Your task to perform on an android device: Open the phone app and click the voicemail tab. Image 0: 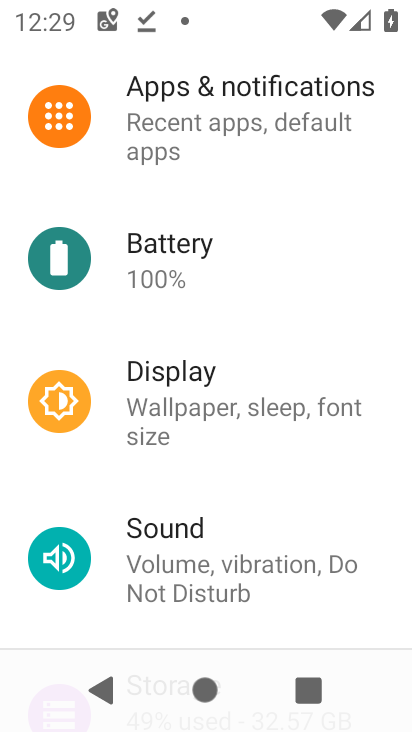
Step 0: press home button
Your task to perform on an android device: Open the phone app and click the voicemail tab. Image 1: 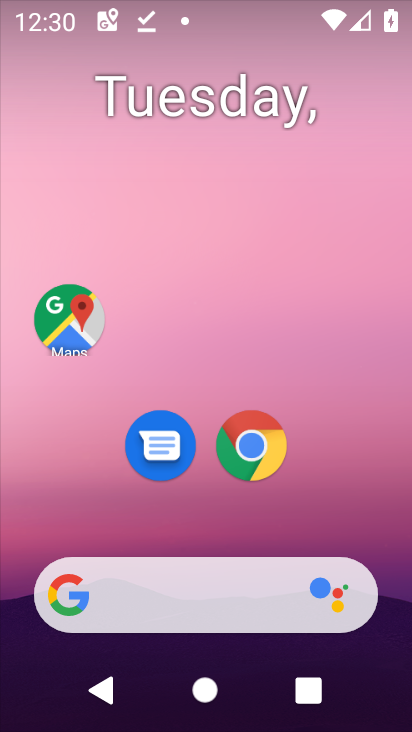
Step 1: drag from (328, 486) to (230, 13)
Your task to perform on an android device: Open the phone app and click the voicemail tab. Image 2: 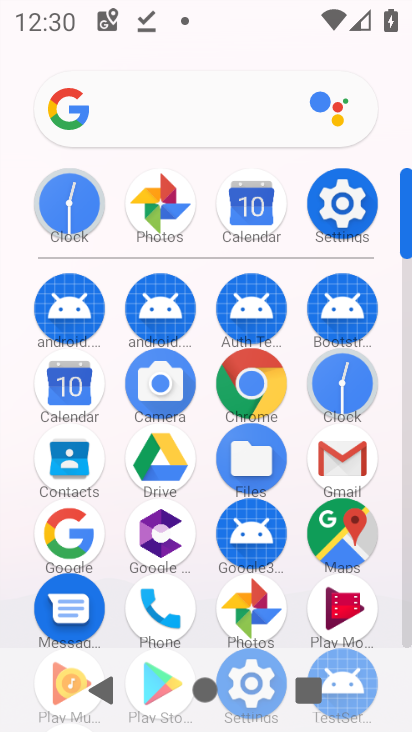
Step 2: click (162, 603)
Your task to perform on an android device: Open the phone app and click the voicemail tab. Image 3: 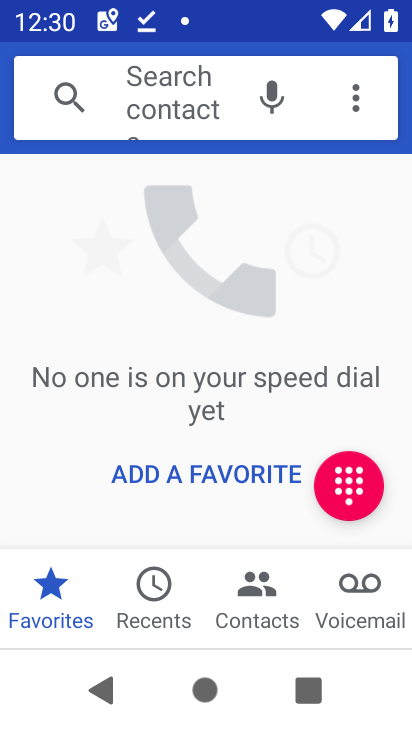
Step 3: click (360, 601)
Your task to perform on an android device: Open the phone app and click the voicemail tab. Image 4: 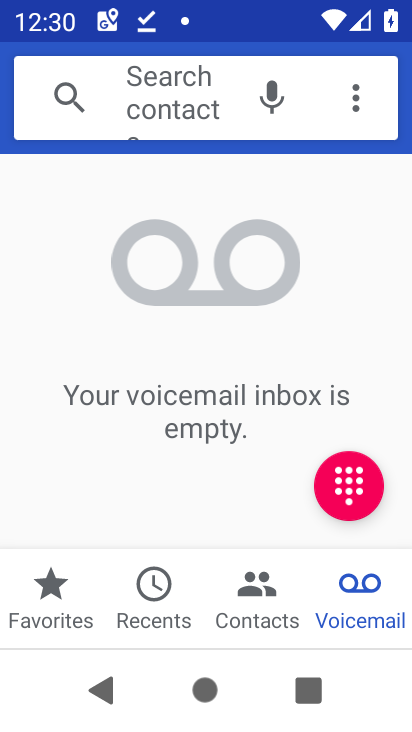
Step 4: task complete